Your task to perform on an android device: turn off priority inbox in the gmail app Image 0: 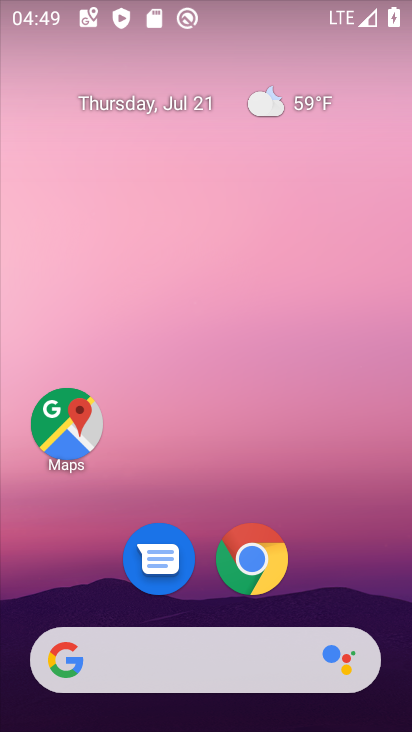
Step 0: drag from (98, 572) to (203, 20)
Your task to perform on an android device: turn off priority inbox in the gmail app Image 1: 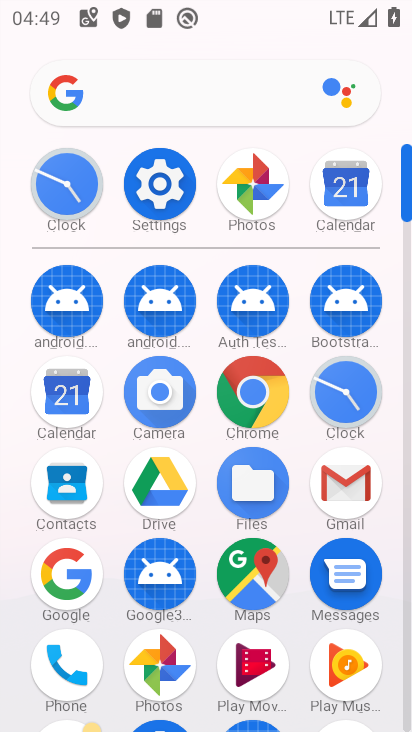
Step 1: click (331, 485)
Your task to perform on an android device: turn off priority inbox in the gmail app Image 2: 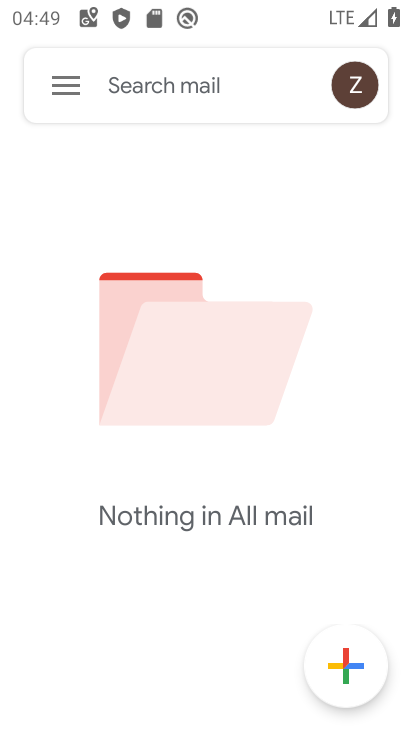
Step 2: click (74, 76)
Your task to perform on an android device: turn off priority inbox in the gmail app Image 3: 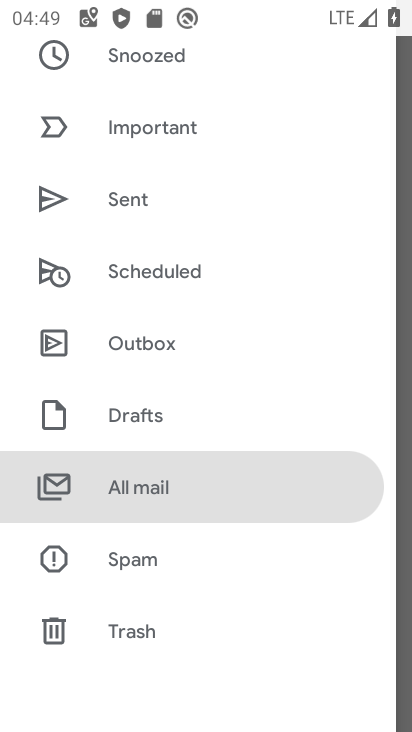
Step 3: drag from (135, 634) to (256, 153)
Your task to perform on an android device: turn off priority inbox in the gmail app Image 4: 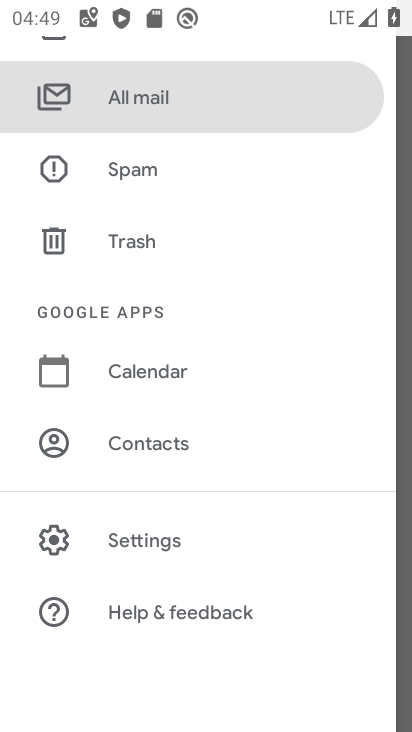
Step 4: click (157, 533)
Your task to perform on an android device: turn off priority inbox in the gmail app Image 5: 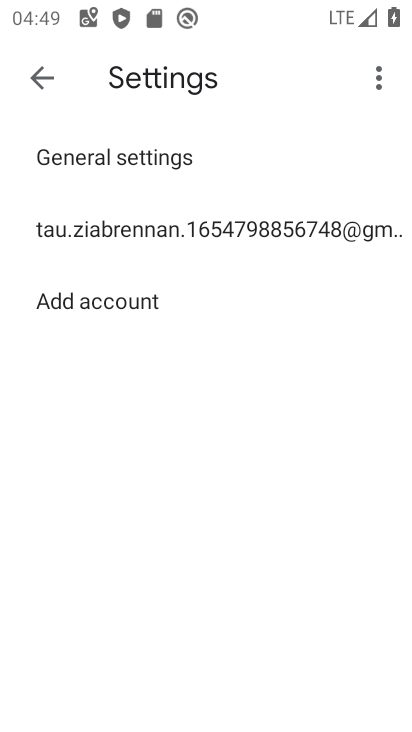
Step 5: click (157, 233)
Your task to perform on an android device: turn off priority inbox in the gmail app Image 6: 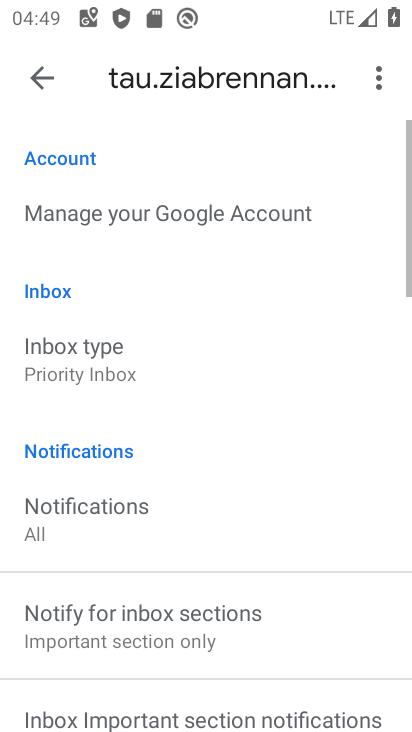
Step 6: click (69, 349)
Your task to perform on an android device: turn off priority inbox in the gmail app Image 7: 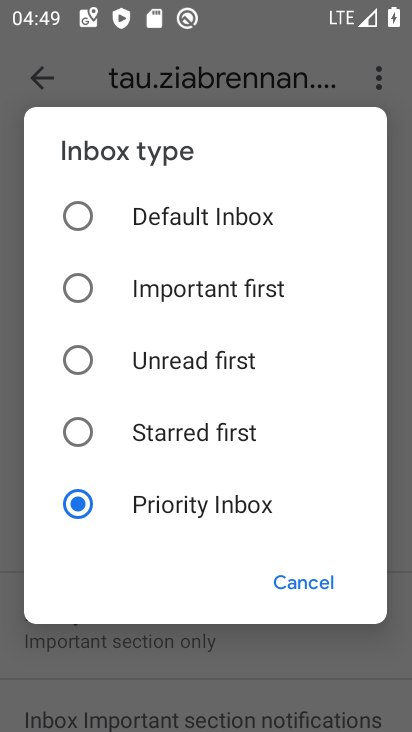
Step 7: click (77, 218)
Your task to perform on an android device: turn off priority inbox in the gmail app Image 8: 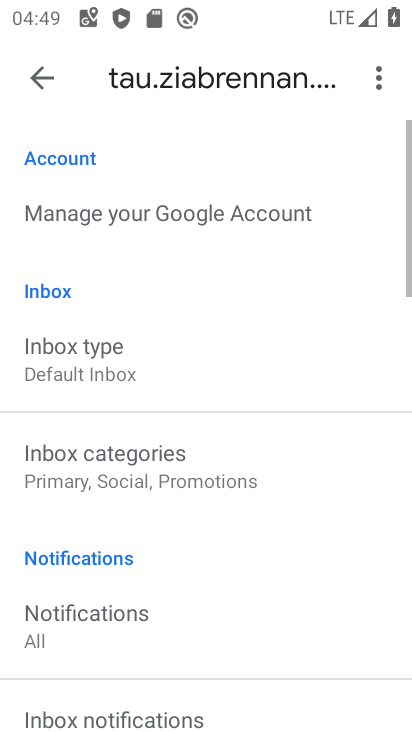
Step 8: task complete